Your task to perform on an android device: Search for Italian restaurants on Maps Image 0: 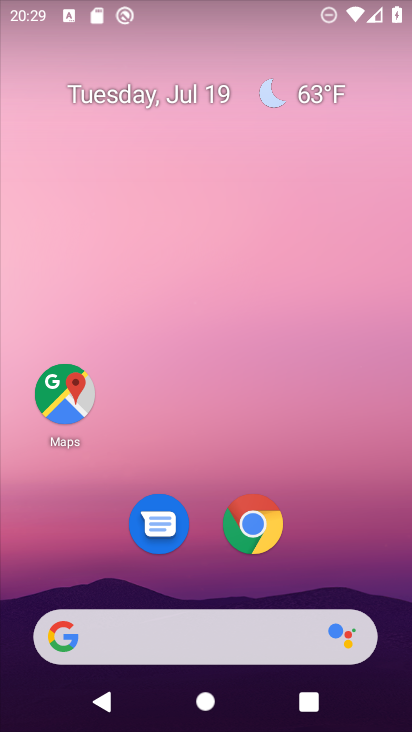
Step 0: click (55, 391)
Your task to perform on an android device: Search for Italian restaurants on Maps Image 1: 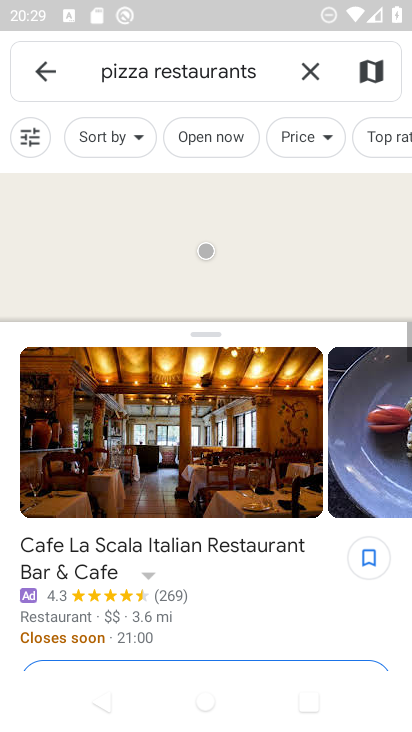
Step 1: click (305, 72)
Your task to perform on an android device: Search for Italian restaurants on Maps Image 2: 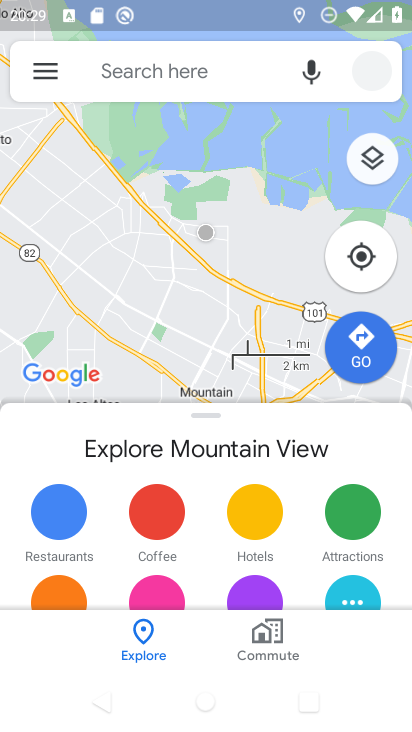
Step 2: click (200, 69)
Your task to perform on an android device: Search for Italian restaurants on Maps Image 3: 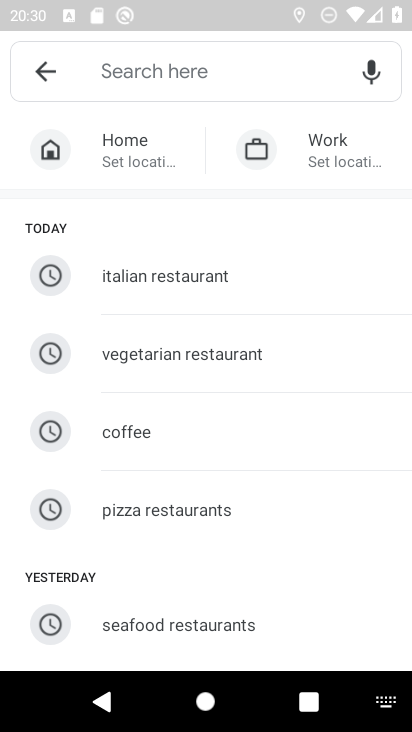
Step 3: click (201, 265)
Your task to perform on an android device: Search for Italian restaurants on Maps Image 4: 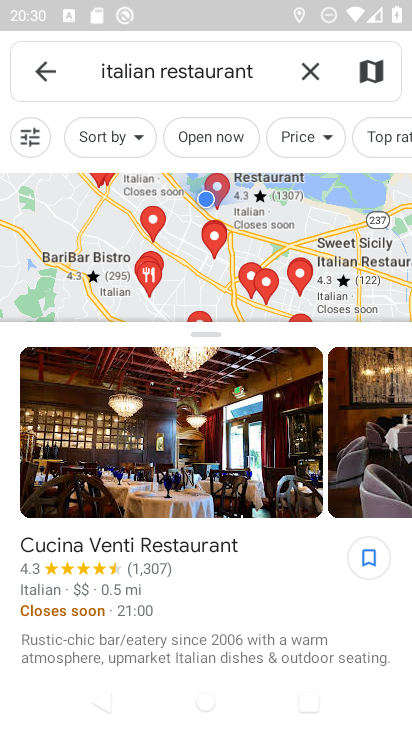
Step 4: task complete